Your task to perform on an android device: change your default location settings in chrome Image 0: 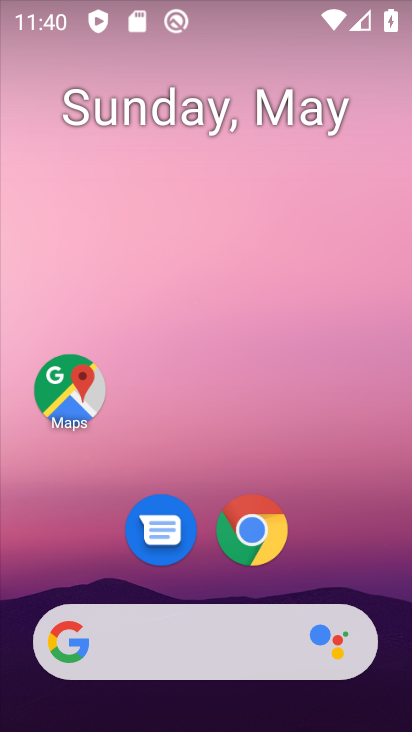
Step 0: click (242, 540)
Your task to perform on an android device: change your default location settings in chrome Image 1: 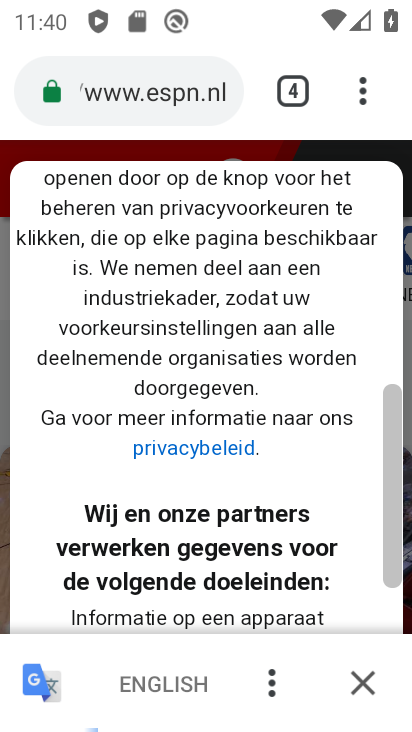
Step 1: drag from (364, 76) to (152, 549)
Your task to perform on an android device: change your default location settings in chrome Image 2: 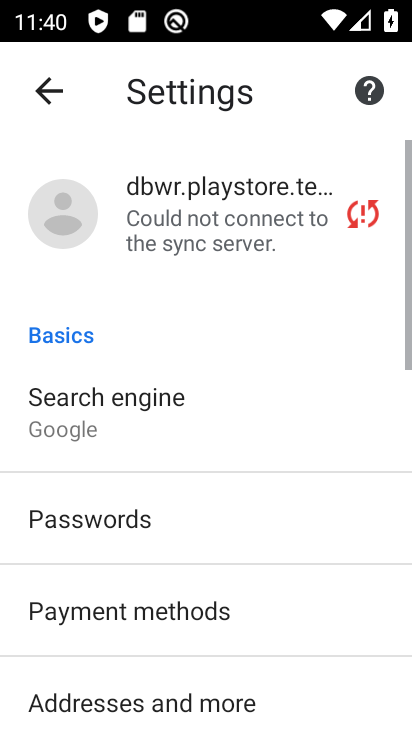
Step 2: drag from (172, 564) to (296, 16)
Your task to perform on an android device: change your default location settings in chrome Image 3: 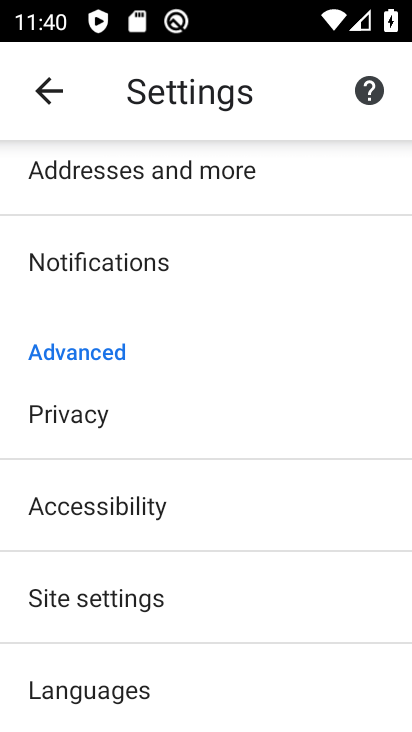
Step 3: drag from (182, 627) to (268, 164)
Your task to perform on an android device: change your default location settings in chrome Image 4: 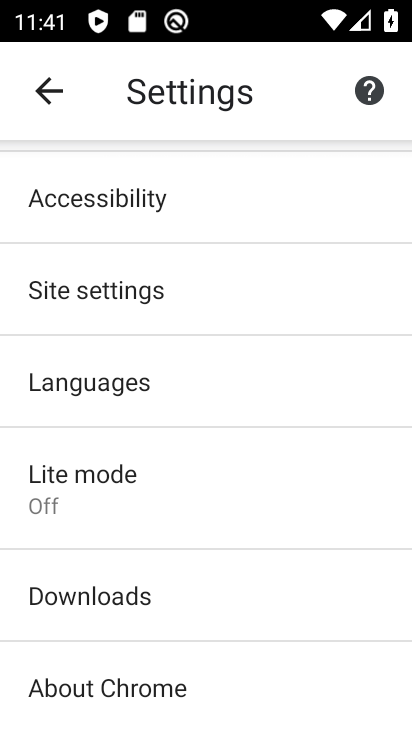
Step 4: click (168, 289)
Your task to perform on an android device: change your default location settings in chrome Image 5: 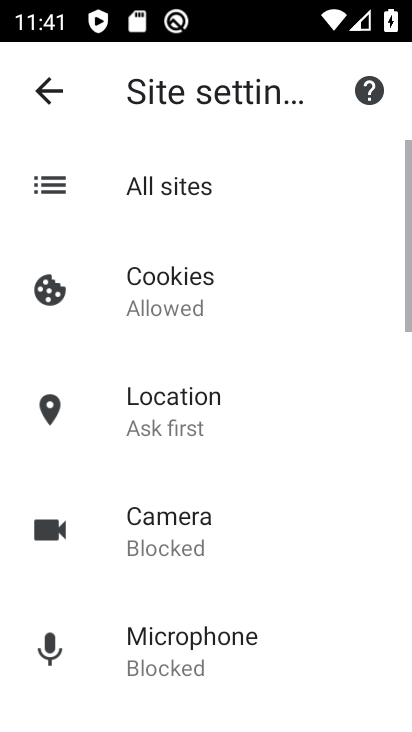
Step 5: click (182, 440)
Your task to perform on an android device: change your default location settings in chrome Image 6: 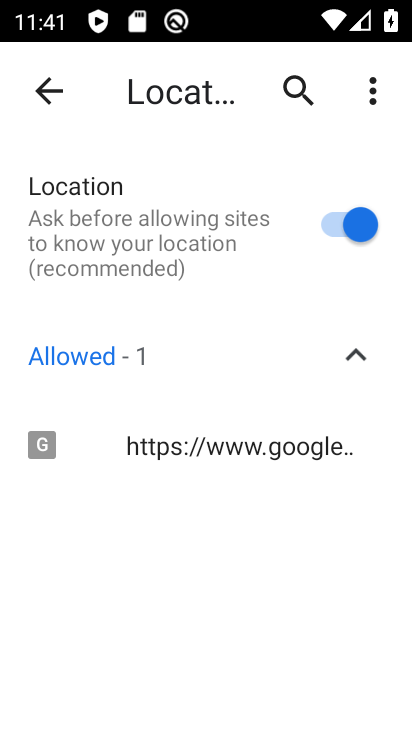
Step 6: click (232, 435)
Your task to perform on an android device: change your default location settings in chrome Image 7: 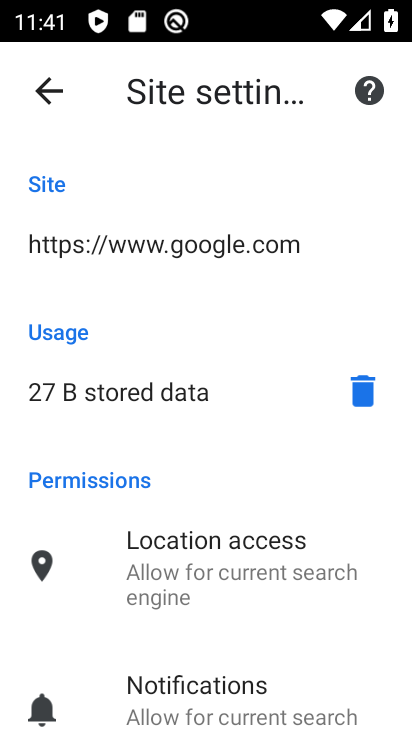
Step 7: drag from (192, 632) to (250, 285)
Your task to perform on an android device: change your default location settings in chrome Image 8: 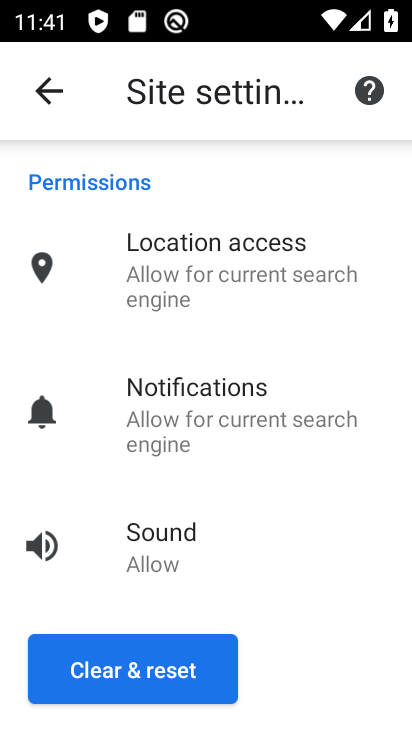
Step 8: click (286, 255)
Your task to perform on an android device: change your default location settings in chrome Image 9: 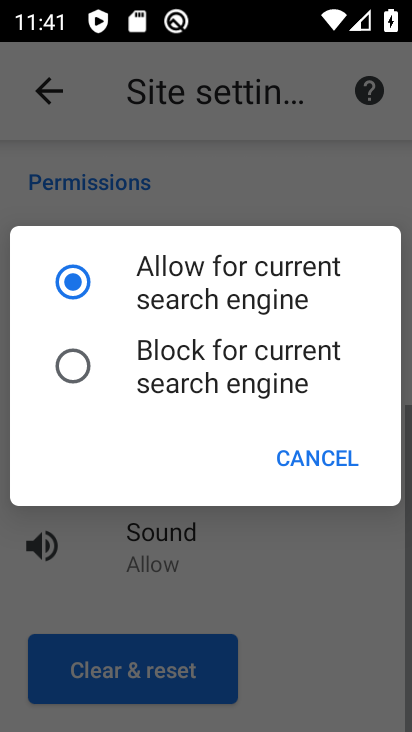
Step 9: click (197, 368)
Your task to perform on an android device: change your default location settings in chrome Image 10: 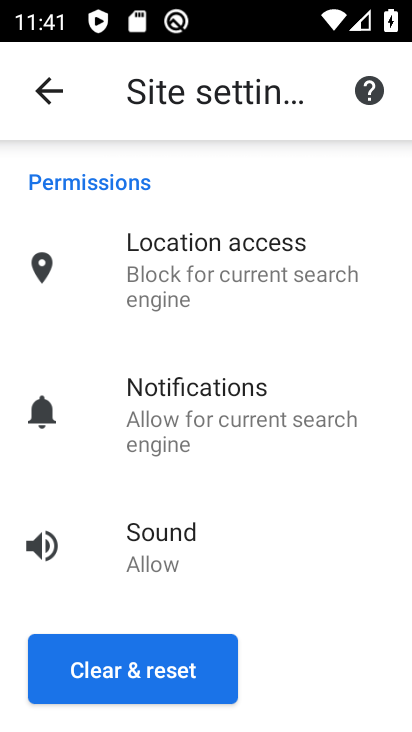
Step 10: task complete